Your task to perform on an android device: toggle translation in the chrome app Image 0: 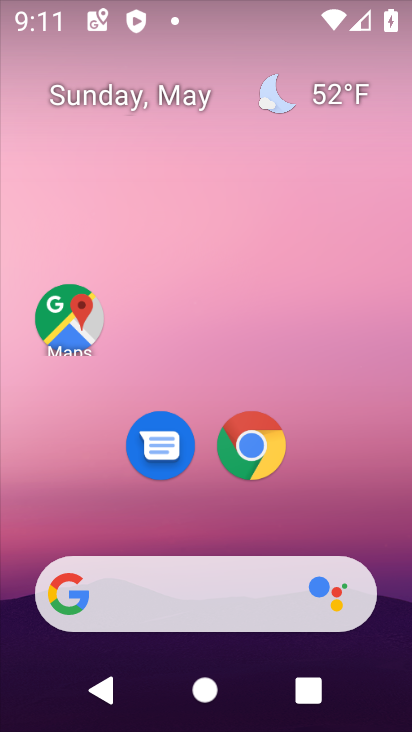
Step 0: click (252, 449)
Your task to perform on an android device: toggle translation in the chrome app Image 1: 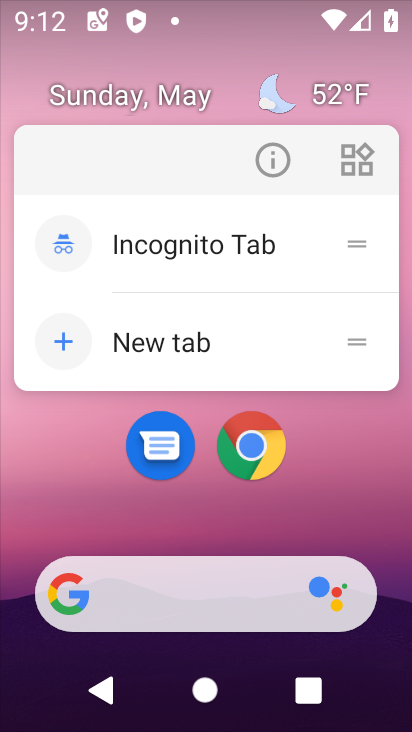
Step 1: click (252, 449)
Your task to perform on an android device: toggle translation in the chrome app Image 2: 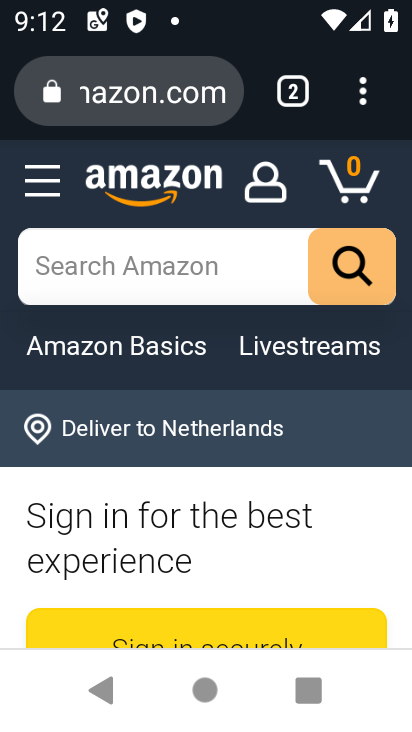
Step 2: click (367, 98)
Your task to perform on an android device: toggle translation in the chrome app Image 3: 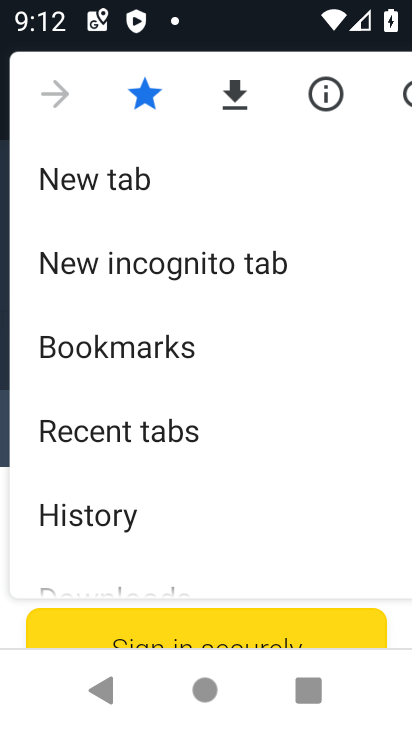
Step 3: drag from (195, 497) to (150, 179)
Your task to perform on an android device: toggle translation in the chrome app Image 4: 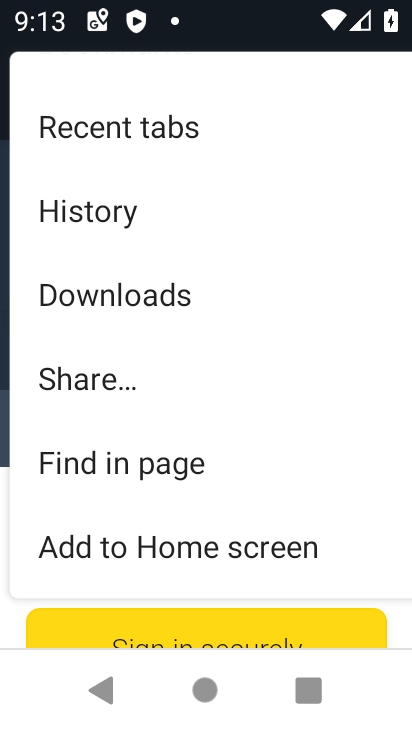
Step 4: drag from (179, 465) to (149, 262)
Your task to perform on an android device: toggle translation in the chrome app Image 5: 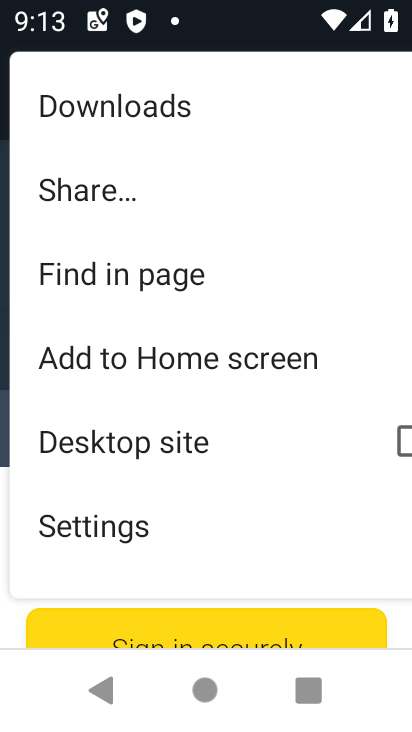
Step 5: click (91, 533)
Your task to perform on an android device: toggle translation in the chrome app Image 6: 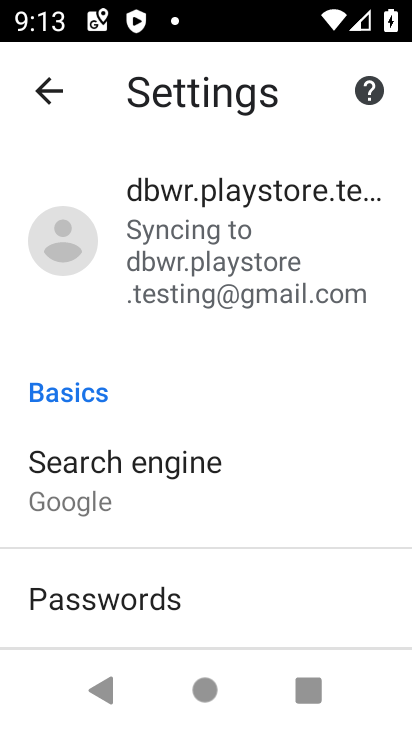
Step 6: drag from (205, 479) to (98, 104)
Your task to perform on an android device: toggle translation in the chrome app Image 7: 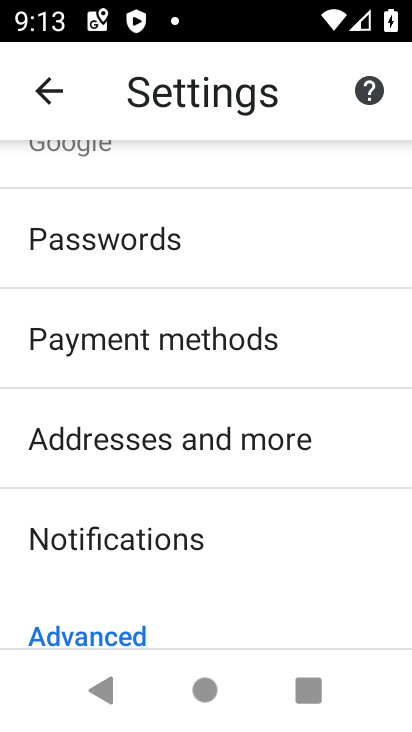
Step 7: drag from (215, 561) to (93, 208)
Your task to perform on an android device: toggle translation in the chrome app Image 8: 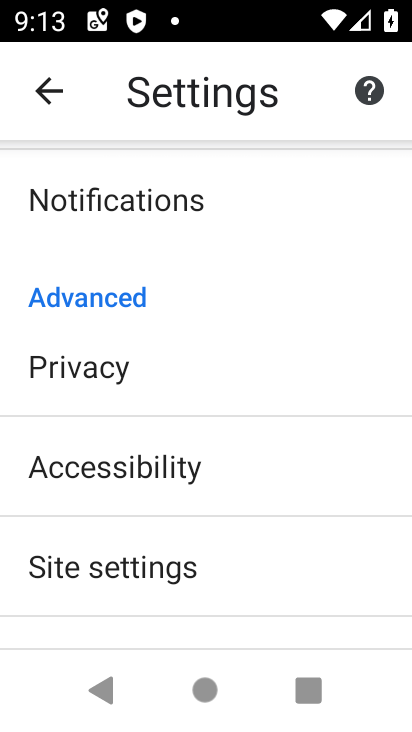
Step 8: drag from (242, 387) to (214, 24)
Your task to perform on an android device: toggle translation in the chrome app Image 9: 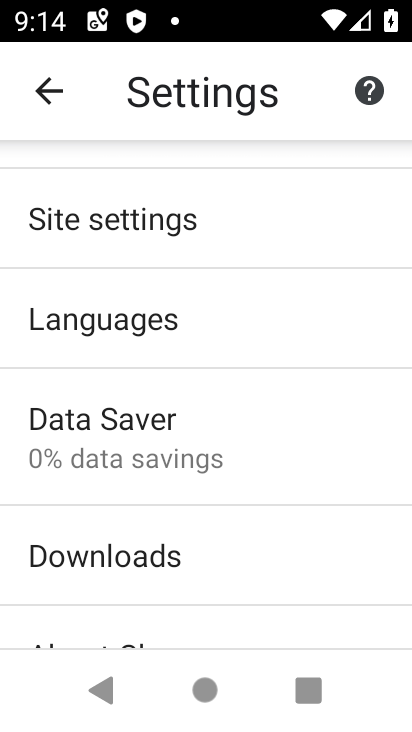
Step 9: click (112, 329)
Your task to perform on an android device: toggle translation in the chrome app Image 10: 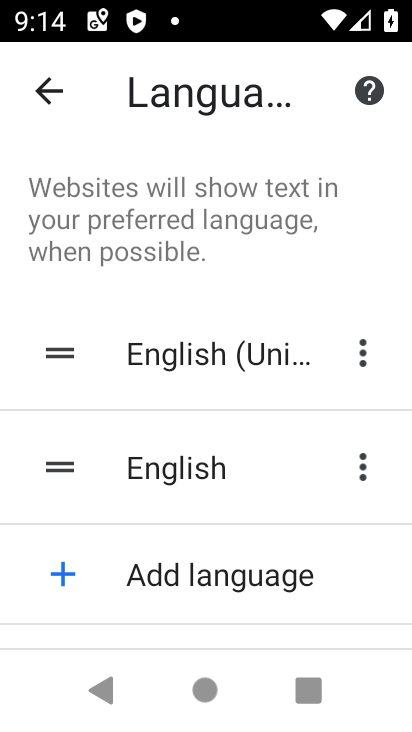
Step 10: drag from (205, 528) to (123, 253)
Your task to perform on an android device: toggle translation in the chrome app Image 11: 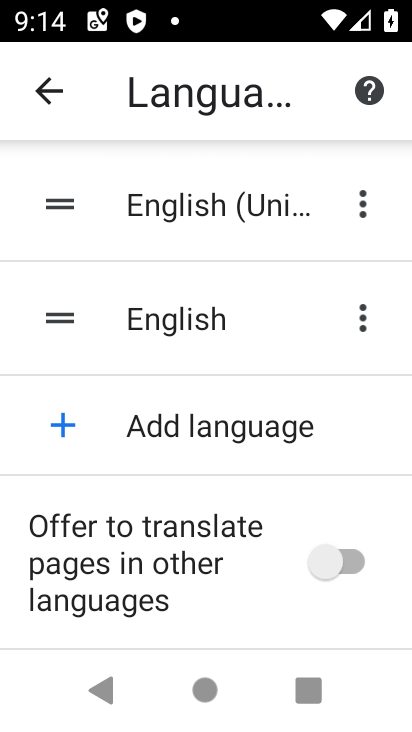
Step 11: click (323, 631)
Your task to perform on an android device: toggle translation in the chrome app Image 12: 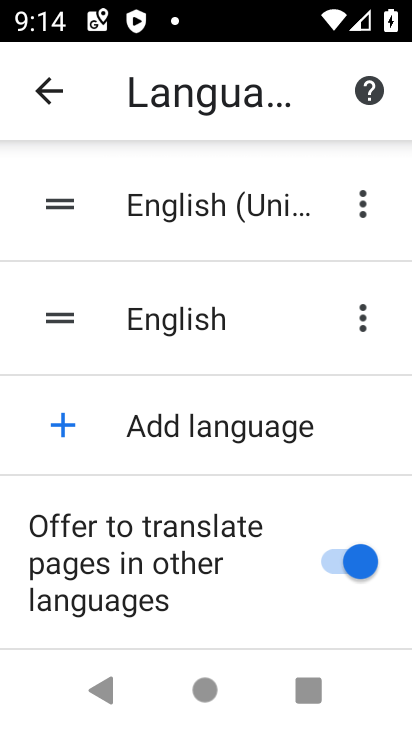
Step 12: task complete